Your task to perform on an android device: make emails show in primary in the gmail app Image 0: 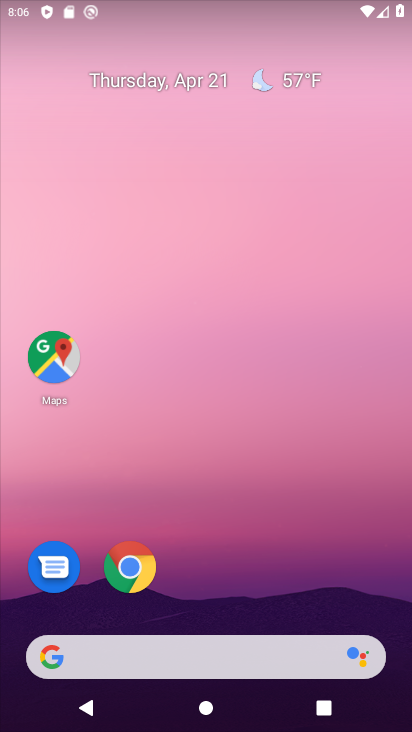
Step 0: drag from (233, 625) to (407, 376)
Your task to perform on an android device: make emails show in primary in the gmail app Image 1: 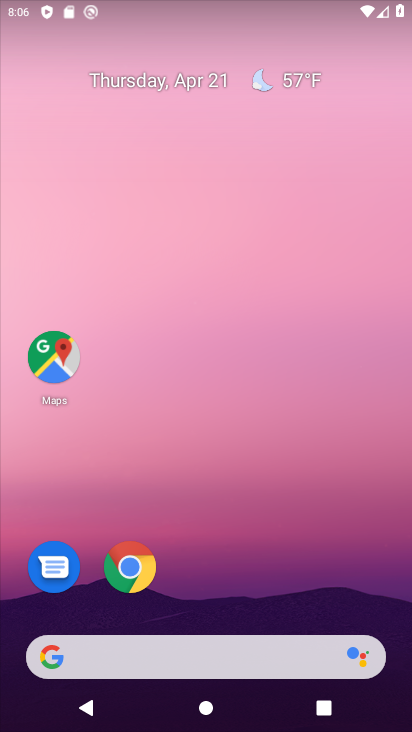
Step 1: drag from (239, 596) to (251, 676)
Your task to perform on an android device: make emails show in primary in the gmail app Image 2: 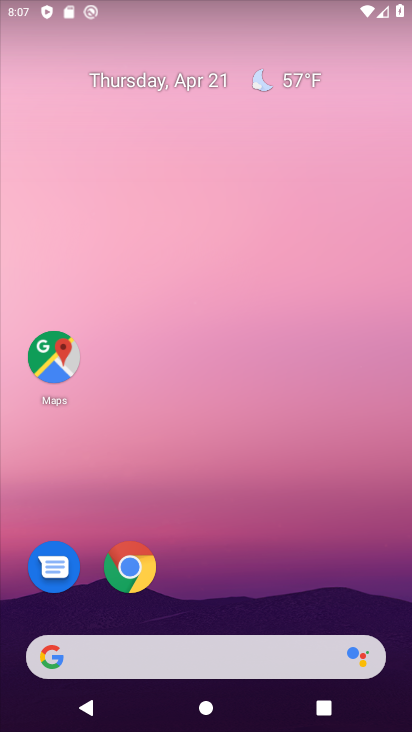
Step 2: drag from (213, 543) to (304, 650)
Your task to perform on an android device: make emails show in primary in the gmail app Image 3: 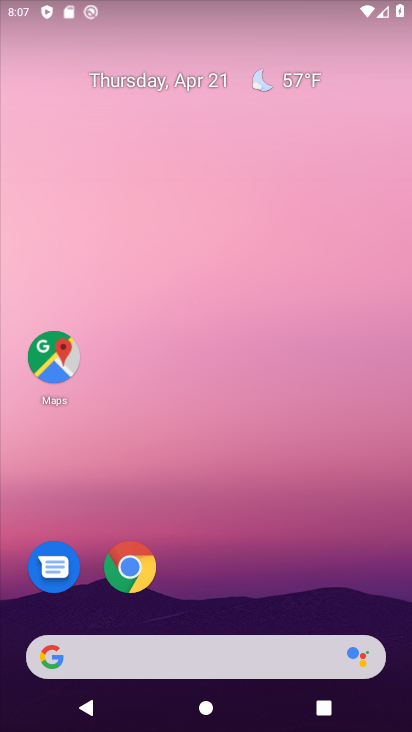
Step 3: drag from (204, 616) to (187, 30)
Your task to perform on an android device: make emails show in primary in the gmail app Image 4: 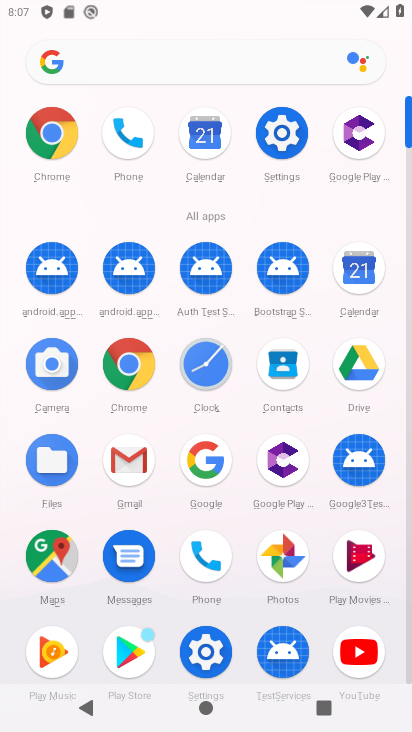
Step 4: click (127, 452)
Your task to perform on an android device: make emails show in primary in the gmail app Image 5: 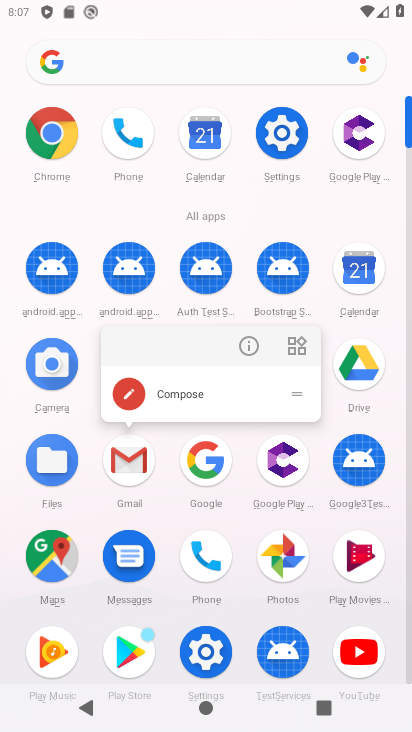
Step 5: click (125, 451)
Your task to perform on an android device: make emails show in primary in the gmail app Image 6: 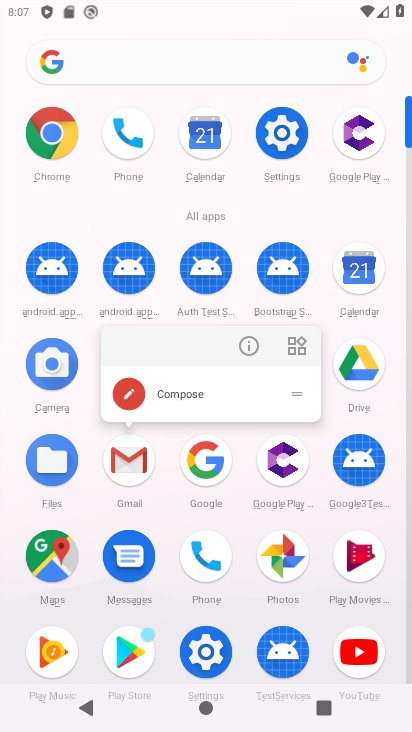
Step 6: click (124, 469)
Your task to perform on an android device: make emails show in primary in the gmail app Image 7: 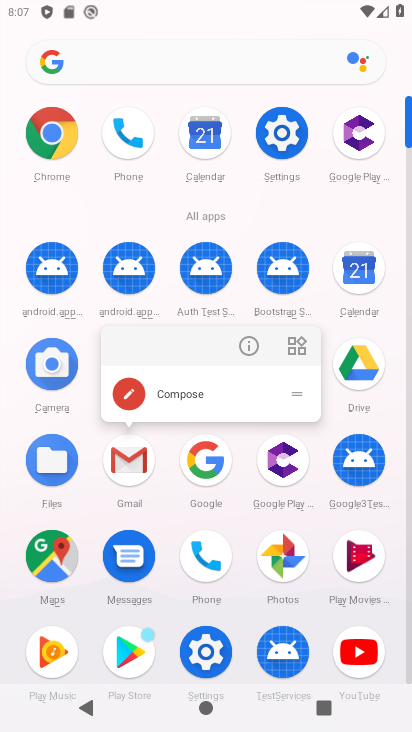
Step 7: click (123, 468)
Your task to perform on an android device: make emails show in primary in the gmail app Image 8: 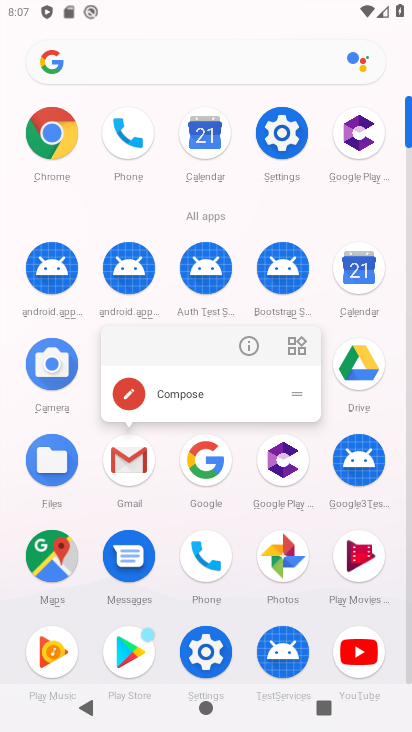
Step 8: click (114, 487)
Your task to perform on an android device: make emails show in primary in the gmail app Image 9: 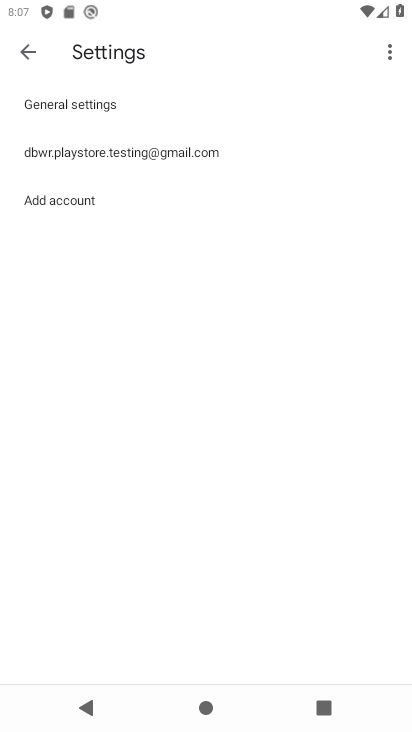
Step 9: click (99, 146)
Your task to perform on an android device: make emails show in primary in the gmail app Image 10: 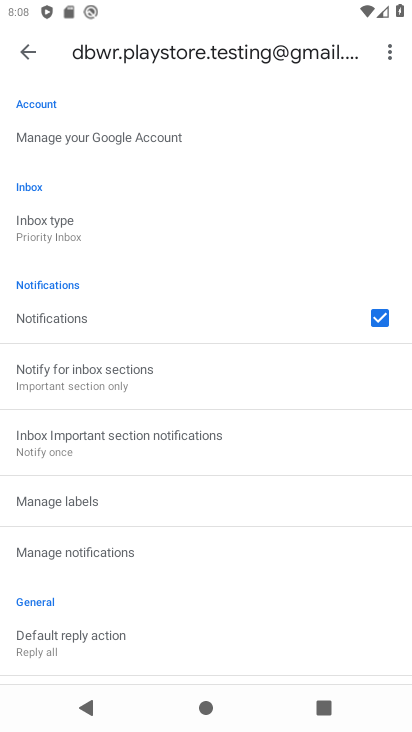
Step 10: click (88, 228)
Your task to perform on an android device: make emails show in primary in the gmail app Image 11: 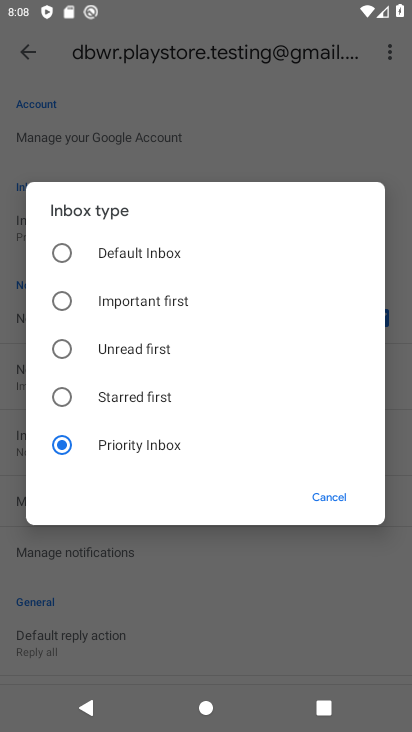
Step 11: click (97, 243)
Your task to perform on an android device: make emails show in primary in the gmail app Image 12: 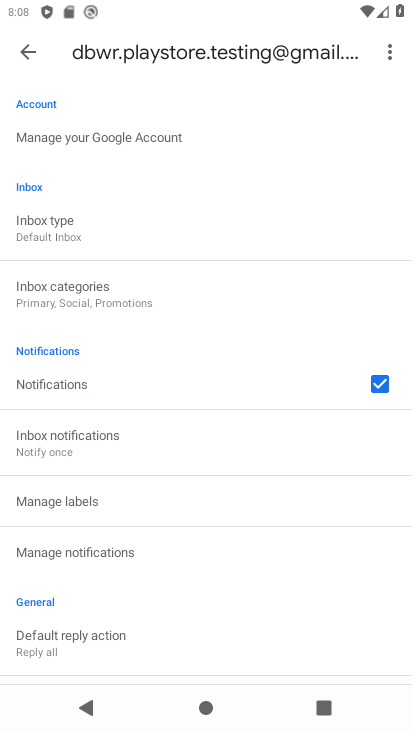
Step 12: task complete